Your task to perform on an android device: Open calendar and show me the fourth week of next month Image 0: 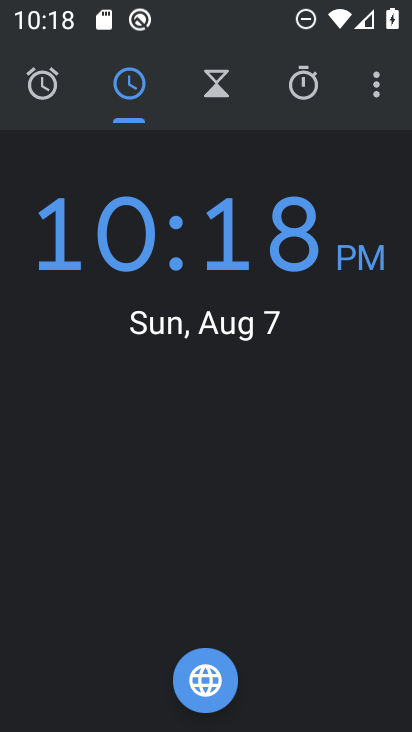
Step 0: press home button
Your task to perform on an android device: Open calendar and show me the fourth week of next month Image 1: 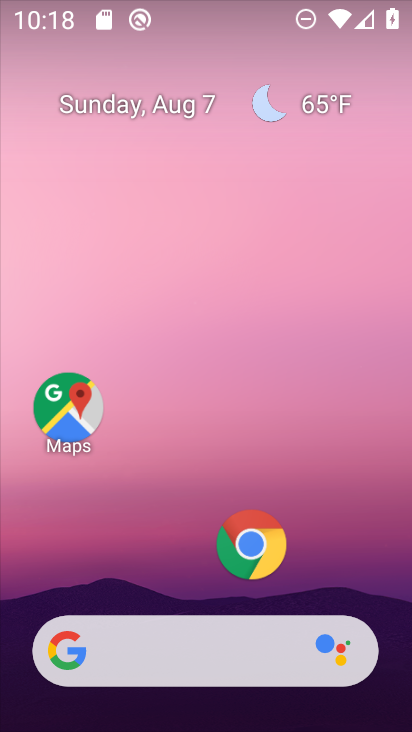
Step 1: drag from (185, 581) to (381, 28)
Your task to perform on an android device: Open calendar and show me the fourth week of next month Image 2: 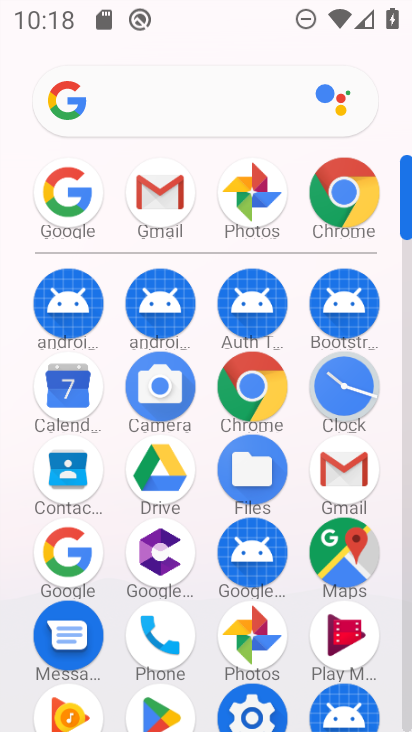
Step 2: click (74, 384)
Your task to perform on an android device: Open calendar and show me the fourth week of next month Image 3: 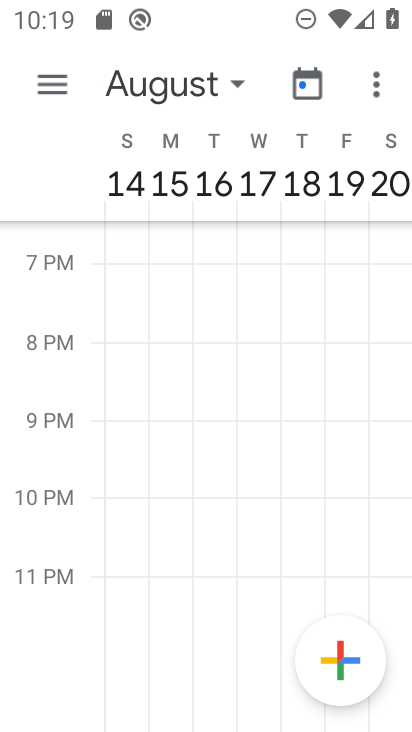
Step 3: click (45, 70)
Your task to perform on an android device: Open calendar and show me the fourth week of next month Image 4: 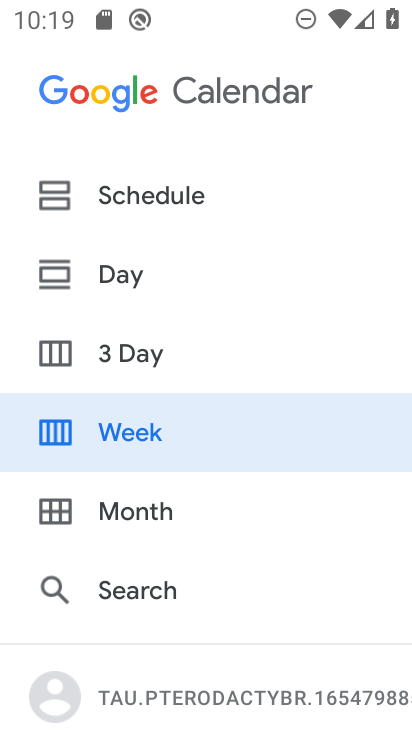
Step 4: click (128, 418)
Your task to perform on an android device: Open calendar and show me the fourth week of next month Image 5: 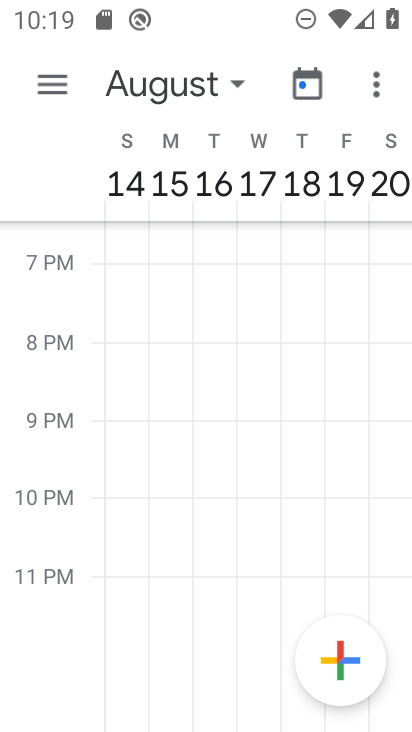
Step 5: task complete